Your task to perform on an android device: Open network settings Image 0: 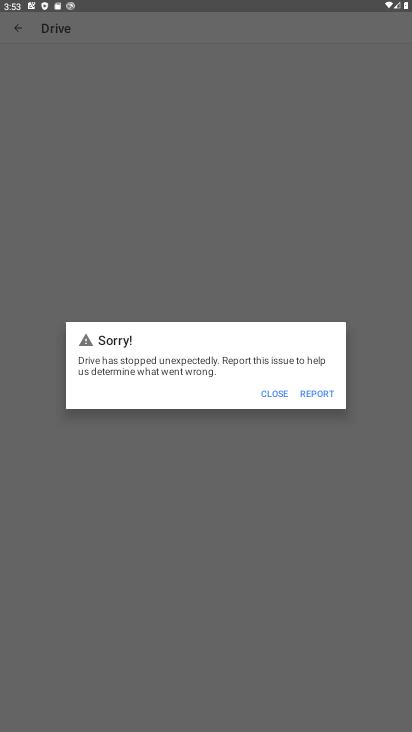
Step 0: press home button
Your task to perform on an android device: Open network settings Image 1: 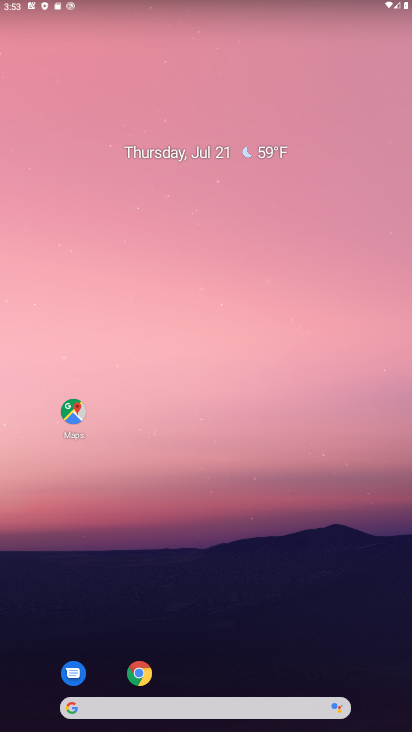
Step 1: drag from (367, 679) to (347, 171)
Your task to perform on an android device: Open network settings Image 2: 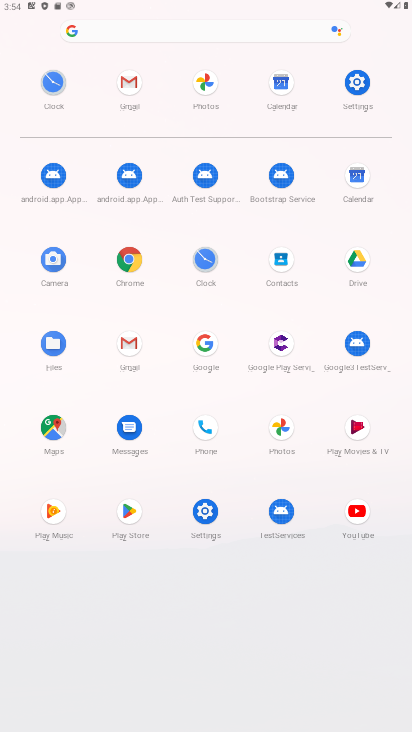
Step 2: click (205, 513)
Your task to perform on an android device: Open network settings Image 3: 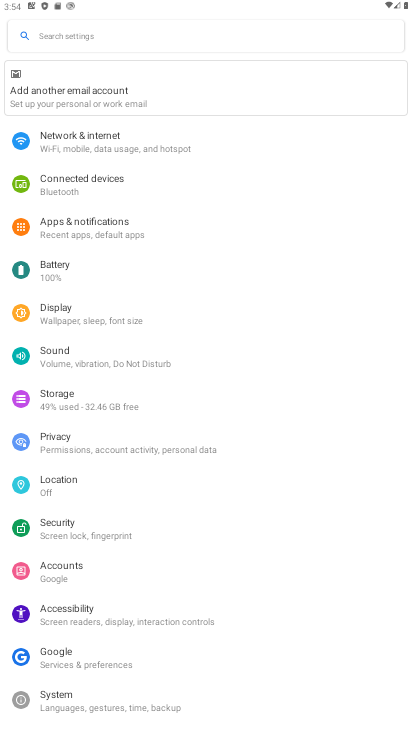
Step 3: click (52, 135)
Your task to perform on an android device: Open network settings Image 4: 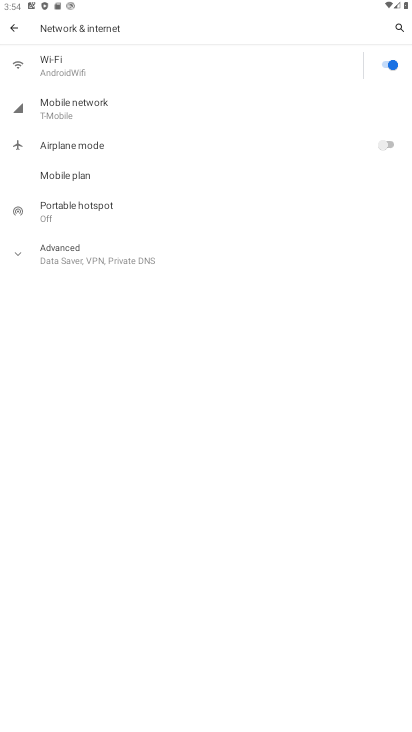
Step 4: click (64, 105)
Your task to perform on an android device: Open network settings Image 5: 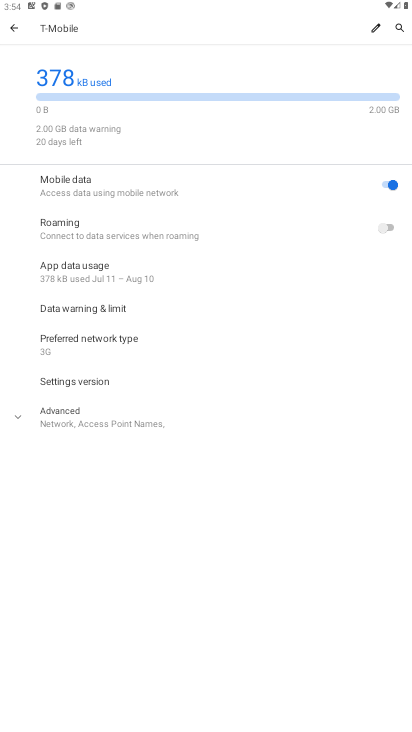
Step 5: task complete